Your task to perform on an android device: Go to display settings Image 0: 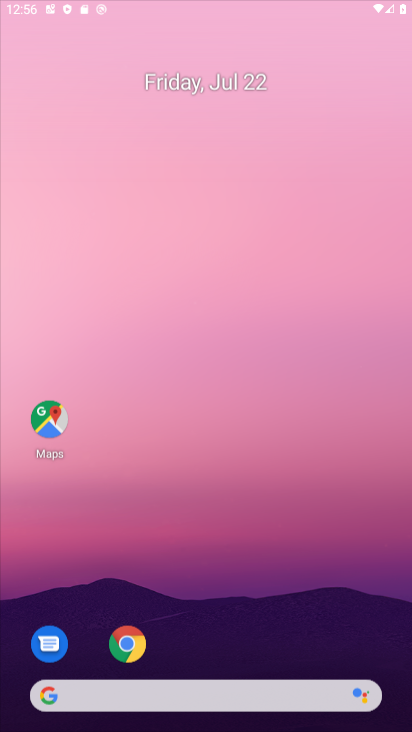
Step 0: press home button
Your task to perform on an android device: Go to display settings Image 1: 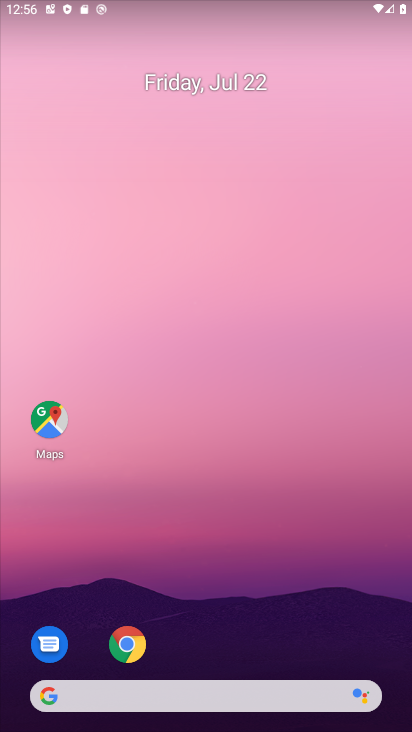
Step 1: drag from (212, 655) to (206, 40)
Your task to perform on an android device: Go to display settings Image 2: 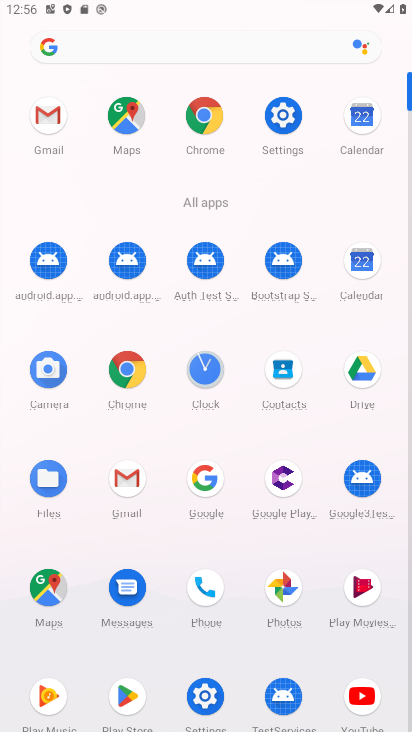
Step 2: click (281, 107)
Your task to perform on an android device: Go to display settings Image 3: 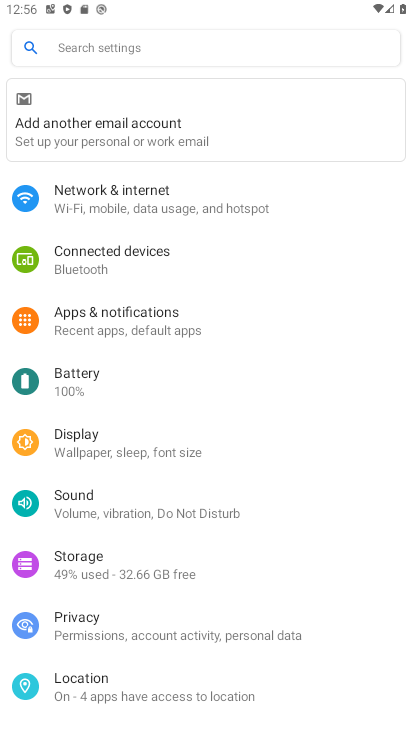
Step 3: click (101, 440)
Your task to perform on an android device: Go to display settings Image 4: 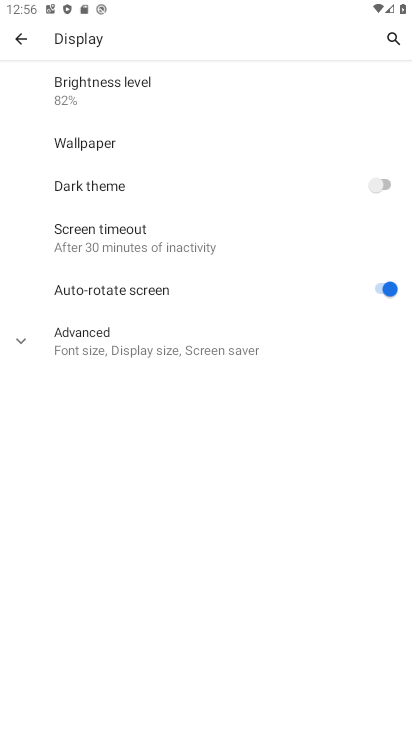
Step 4: click (22, 337)
Your task to perform on an android device: Go to display settings Image 5: 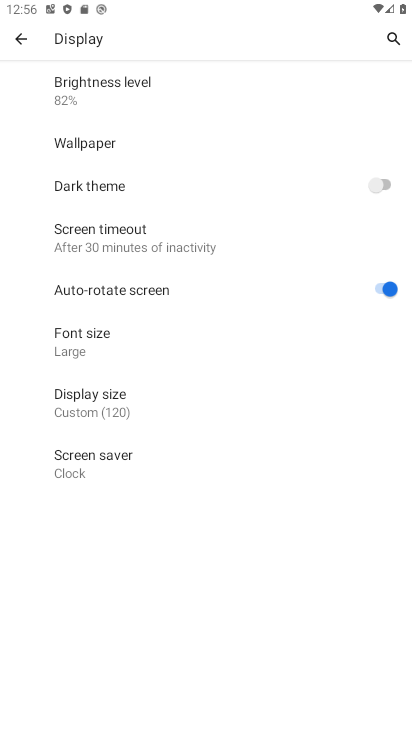
Step 5: task complete